Your task to perform on an android device: Open the stopwatch Image 0: 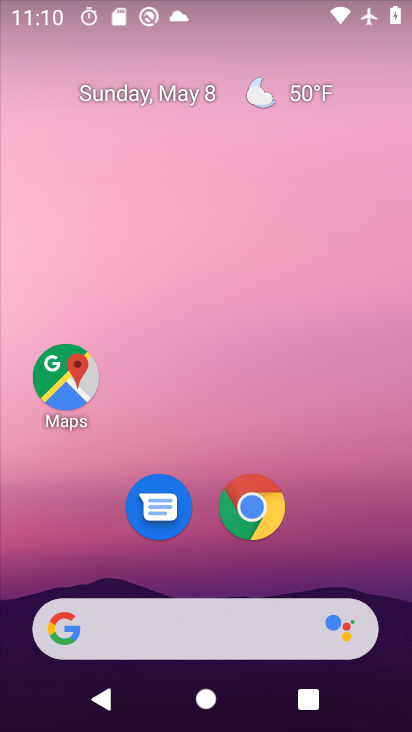
Step 0: drag from (201, 727) to (171, 225)
Your task to perform on an android device: Open the stopwatch Image 1: 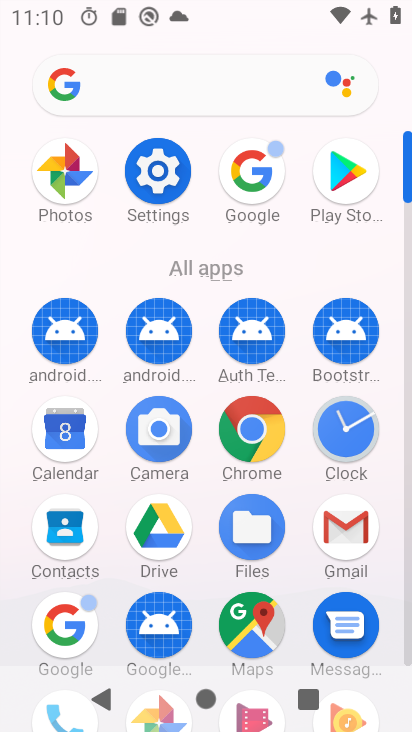
Step 1: click (343, 433)
Your task to perform on an android device: Open the stopwatch Image 2: 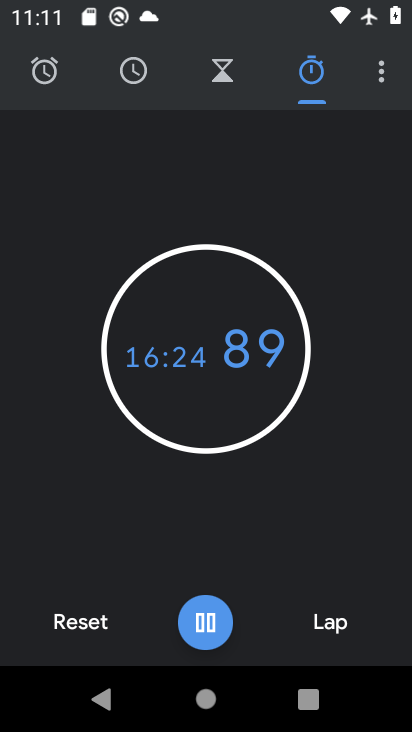
Step 2: task complete